Your task to perform on an android device: Show me popular videos on Youtube Image 0: 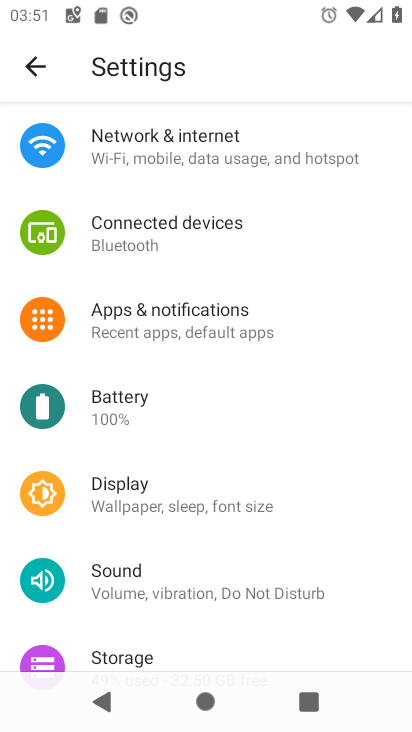
Step 0: press home button
Your task to perform on an android device: Show me popular videos on Youtube Image 1: 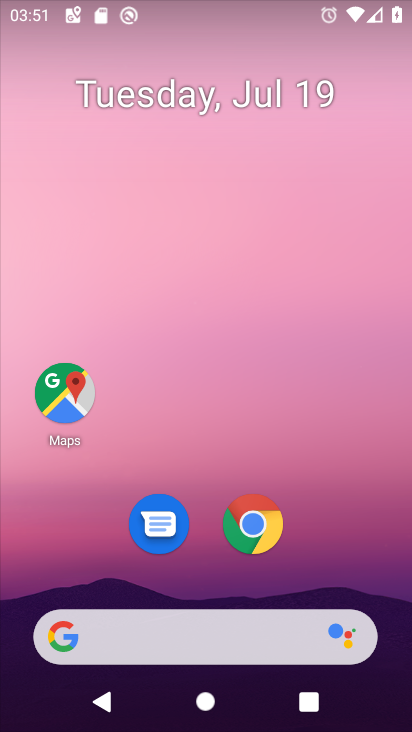
Step 1: drag from (336, 567) to (320, 124)
Your task to perform on an android device: Show me popular videos on Youtube Image 2: 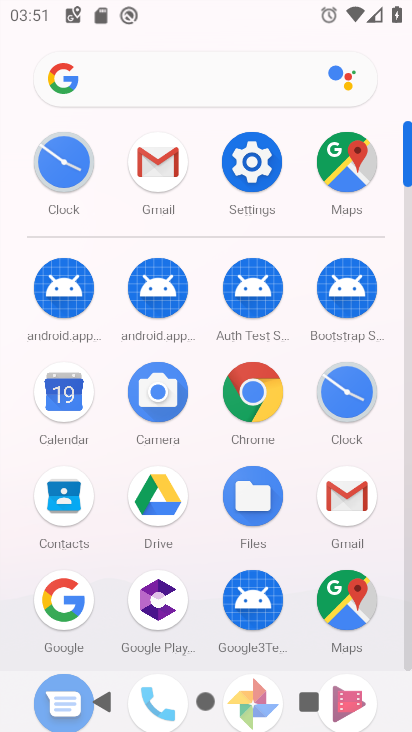
Step 2: drag from (276, 451) to (303, 118)
Your task to perform on an android device: Show me popular videos on Youtube Image 3: 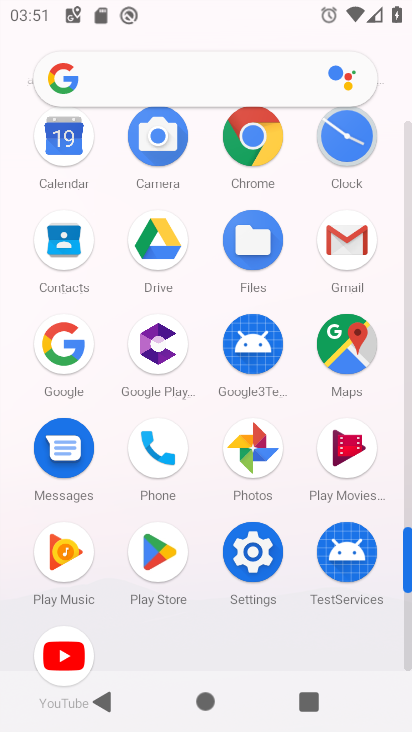
Step 3: click (70, 652)
Your task to perform on an android device: Show me popular videos on Youtube Image 4: 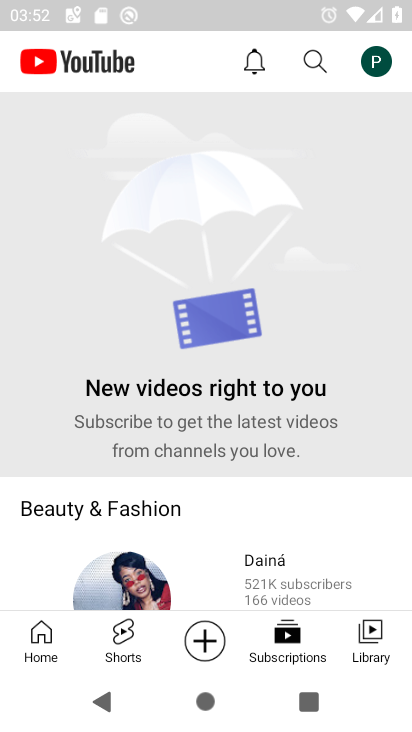
Step 4: click (317, 56)
Your task to perform on an android device: Show me popular videos on Youtube Image 5: 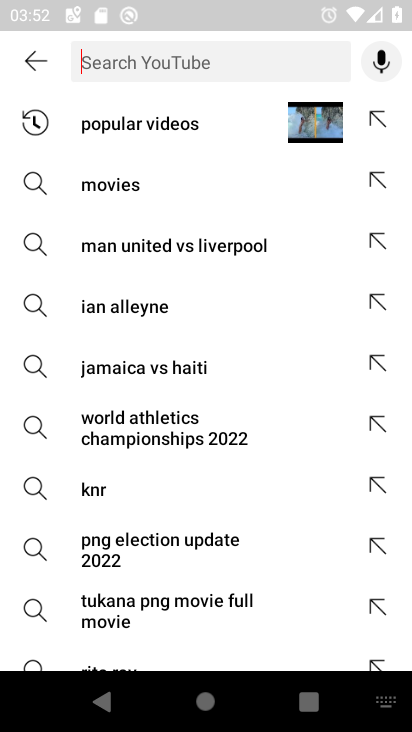
Step 5: click (183, 118)
Your task to perform on an android device: Show me popular videos on Youtube Image 6: 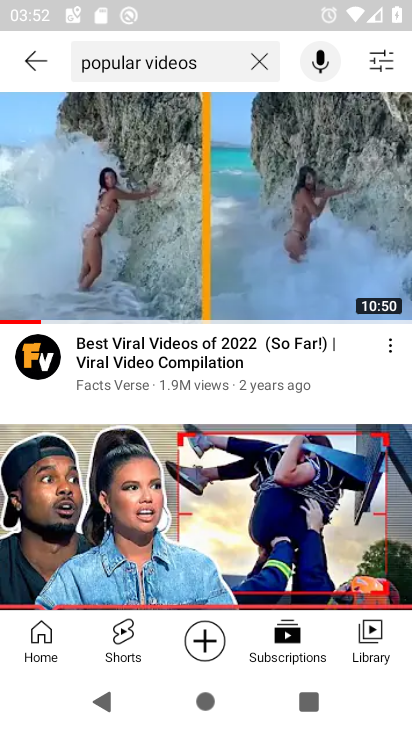
Step 6: drag from (202, 512) to (245, 178)
Your task to perform on an android device: Show me popular videos on Youtube Image 7: 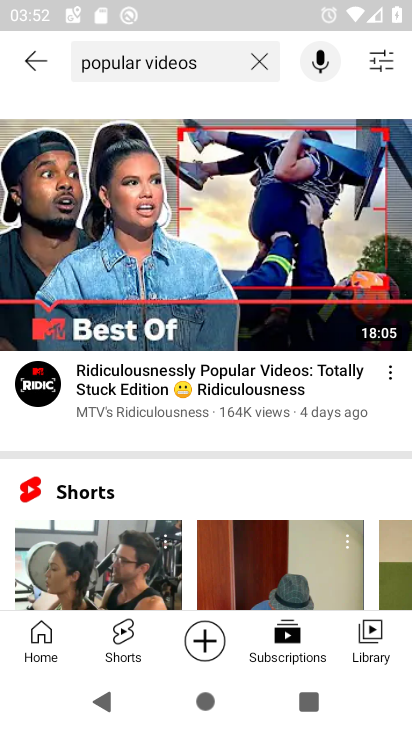
Step 7: click (245, 182)
Your task to perform on an android device: Show me popular videos on Youtube Image 8: 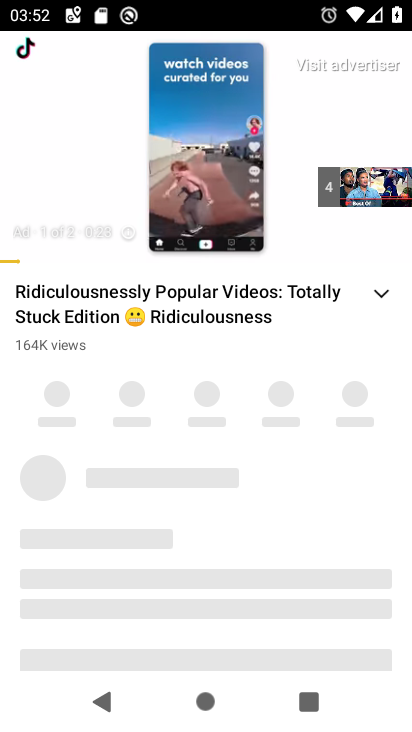
Step 8: task complete